Your task to perform on an android device: check storage Image 0: 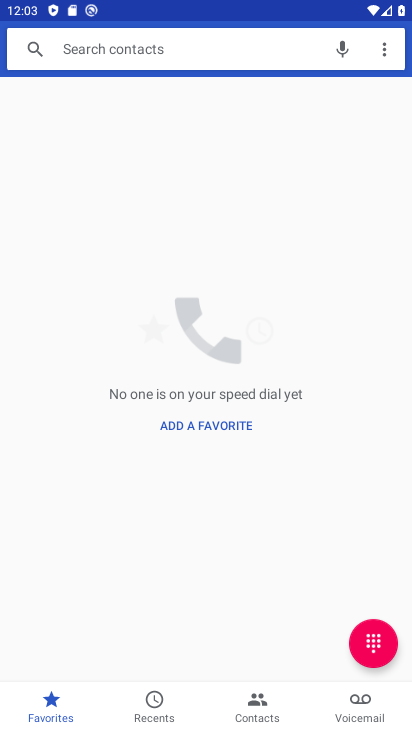
Step 0: press home button
Your task to perform on an android device: check storage Image 1: 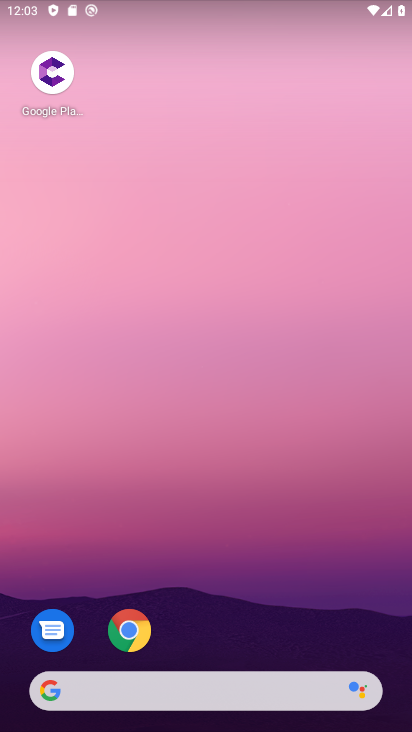
Step 1: drag from (320, 548) to (209, 46)
Your task to perform on an android device: check storage Image 2: 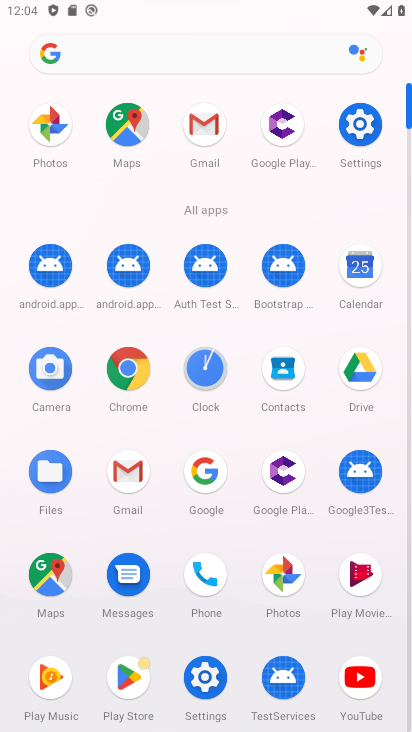
Step 2: click (362, 134)
Your task to perform on an android device: check storage Image 3: 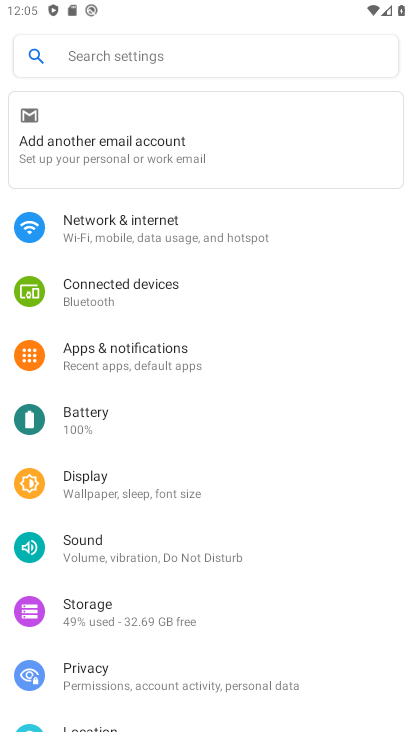
Step 3: drag from (199, 595) to (179, 364)
Your task to perform on an android device: check storage Image 4: 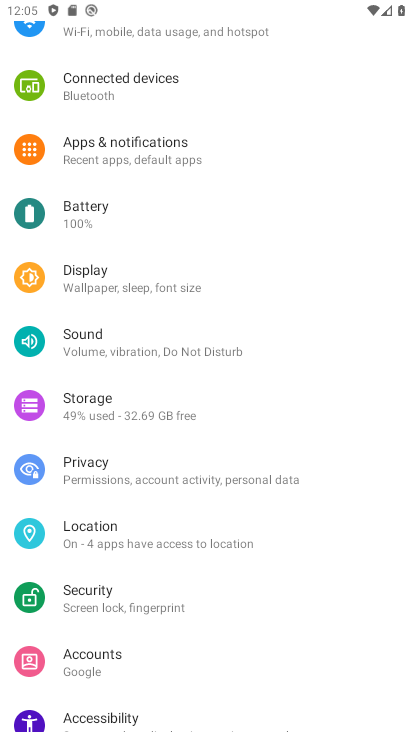
Step 4: click (92, 410)
Your task to perform on an android device: check storage Image 5: 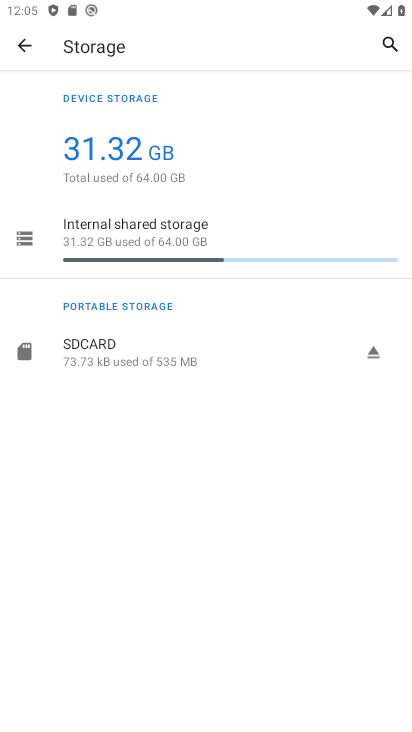
Step 5: click (102, 234)
Your task to perform on an android device: check storage Image 6: 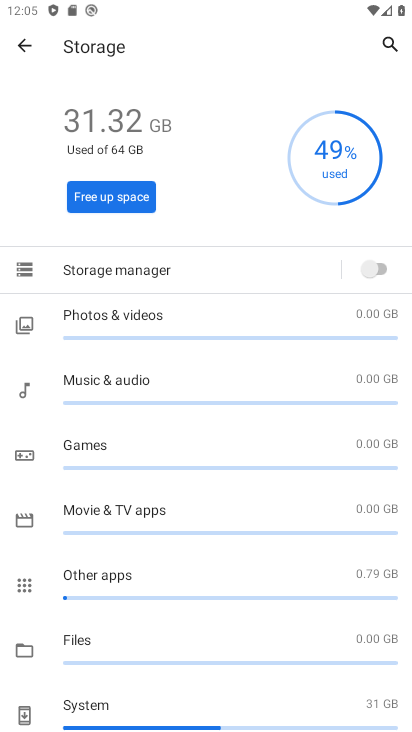
Step 6: task complete